Your task to perform on an android device: set default search engine in the chrome app Image 0: 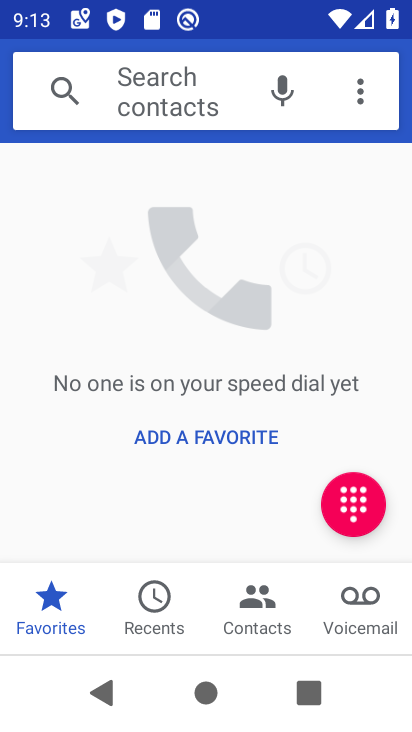
Step 0: press home button
Your task to perform on an android device: set default search engine in the chrome app Image 1: 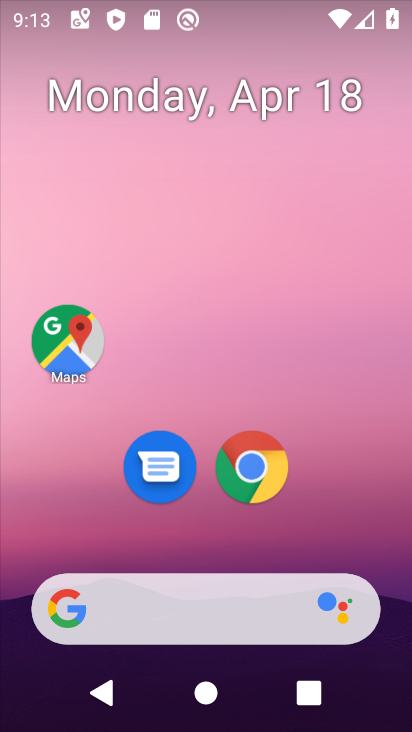
Step 1: drag from (361, 513) to (345, 60)
Your task to perform on an android device: set default search engine in the chrome app Image 2: 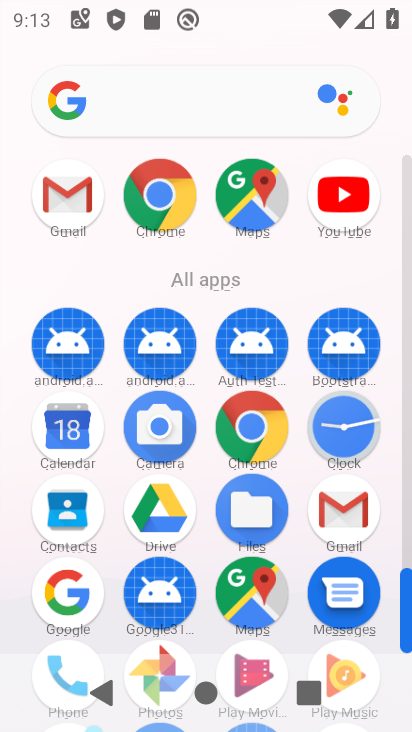
Step 2: click (266, 432)
Your task to perform on an android device: set default search engine in the chrome app Image 3: 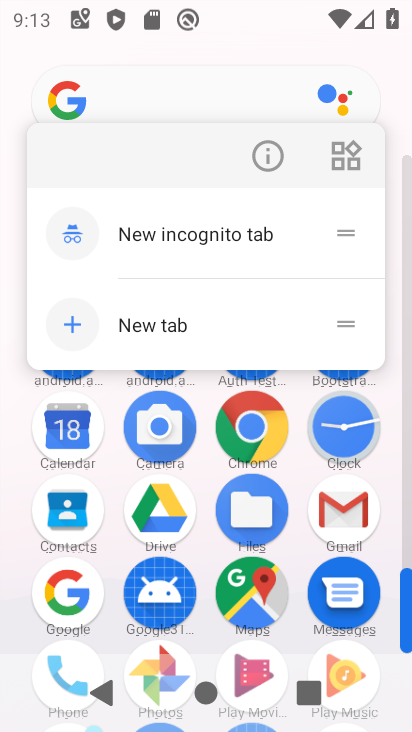
Step 3: click (266, 432)
Your task to perform on an android device: set default search engine in the chrome app Image 4: 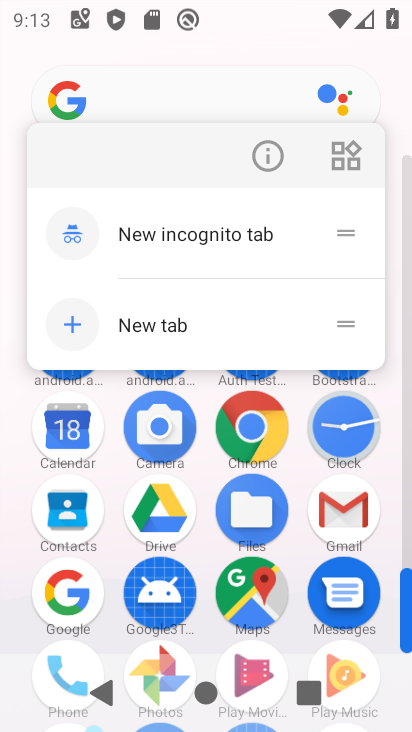
Step 4: click (266, 432)
Your task to perform on an android device: set default search engine in the chrome app Image 5: 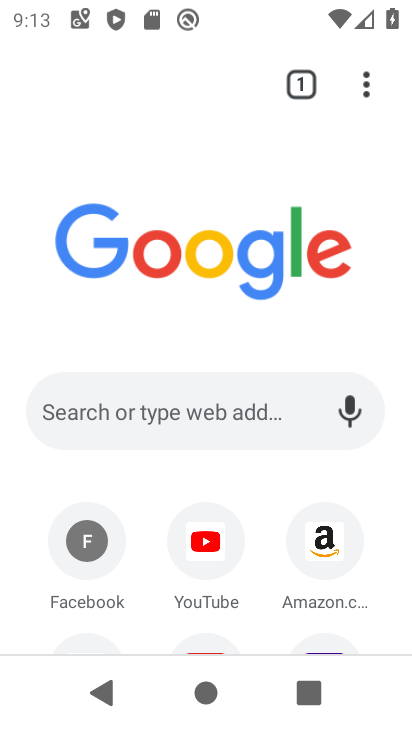
Step 5: click (365, 79)
Your task to perform on an android device: set default search engine in the chrome app Image 6: 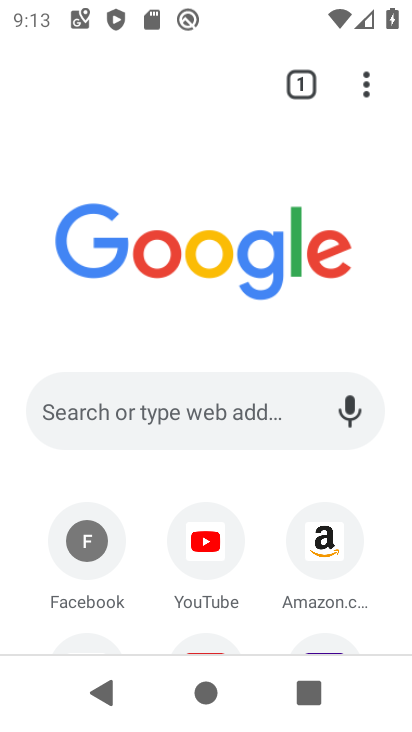
Step 6: click (369, 77)
Your task to perform on an android device: set default search engine in the chrome app Image 7: 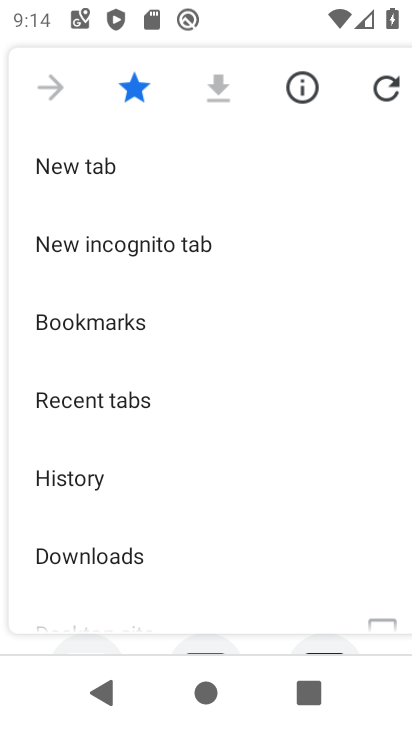
Step 7: drag from (147, 528) to (225, 231)
Your task to perform on an android device: set default search engine in the chrome app Image 8: 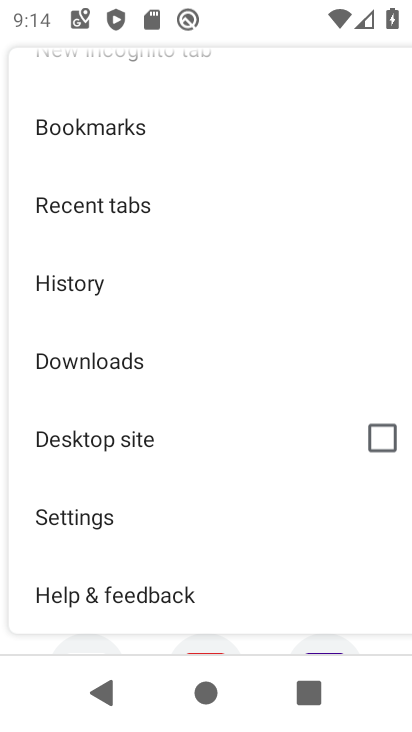
Step 8: click (92, 515)
Your task to perform on an android device: set default search engine in the chrome app Image 9: 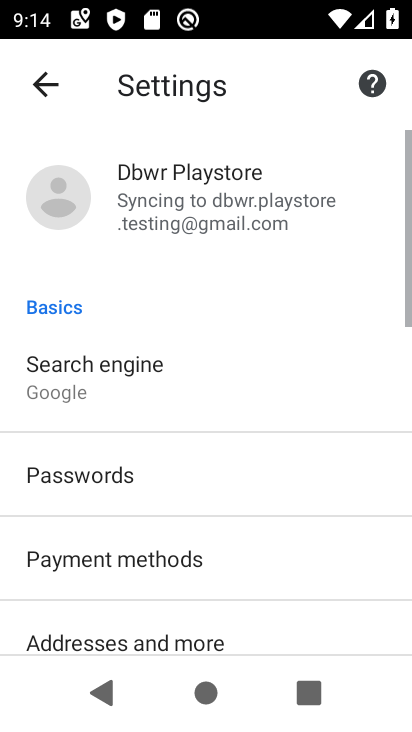
Step 9: click (116, 373)
Your task to perform on an android device: set default search engine in the chrome app Image 10: 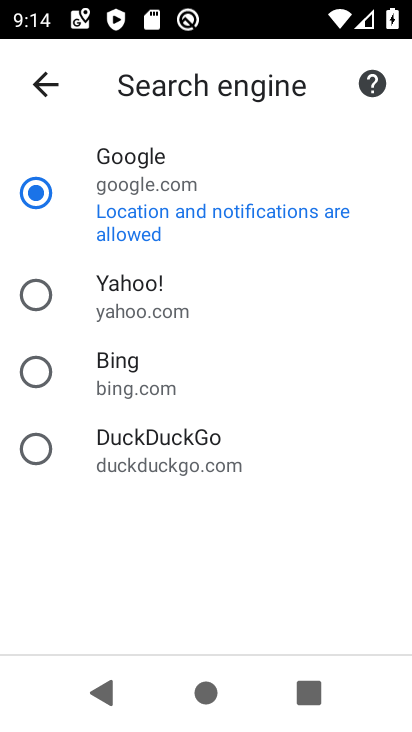
Step 10: click (140, 303)
Your task to perform on an android device: set default search engine in the chrome app Image 11: 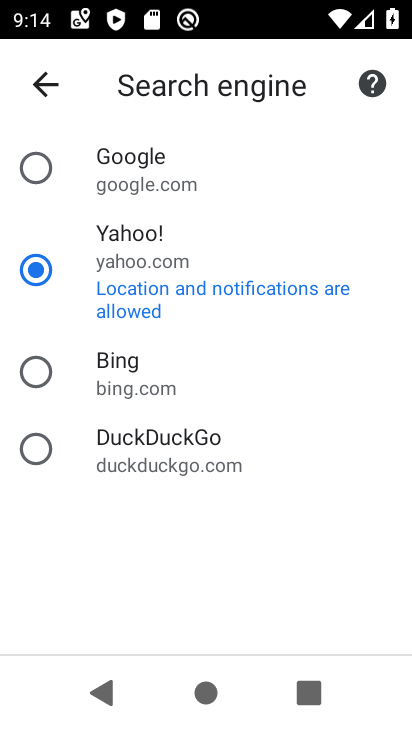
Step 11: task complete